Your task to perform on an android device: clear history in the chrome app Image 0: 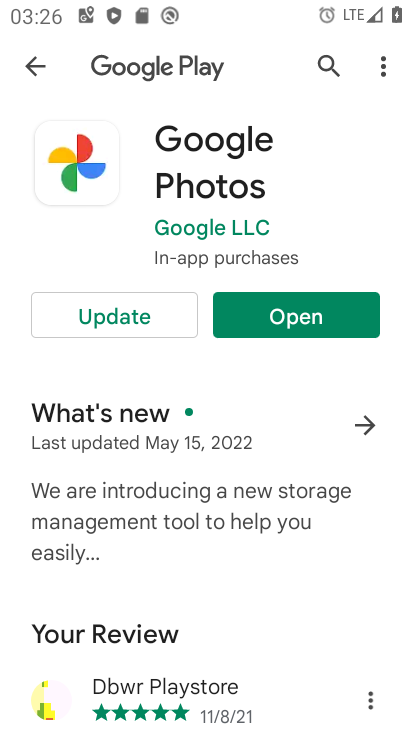
Step 0: press home button
Your task to perform on an android device: clear history in the chrome app Image 1: 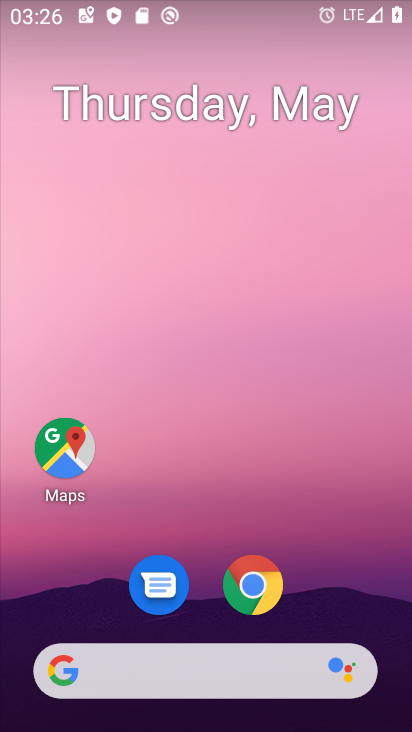
Step 1: click (255, 574)
Your task to perform on an android device: clear history in the chrome app Image 2: 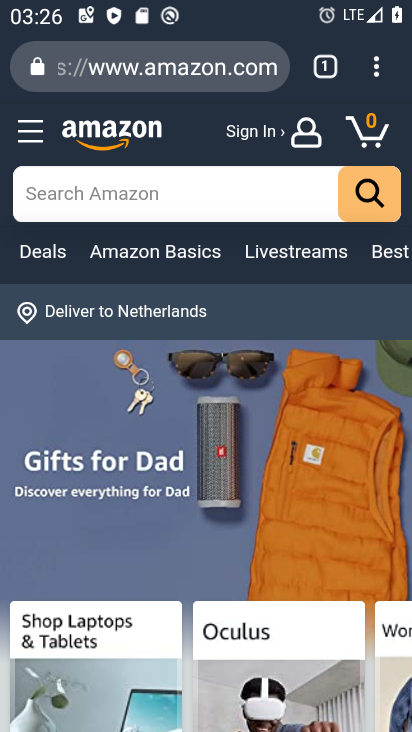
Step 2: click (369, 62)
Your task to perform on an android device: clear history in the chrome app Image 3: 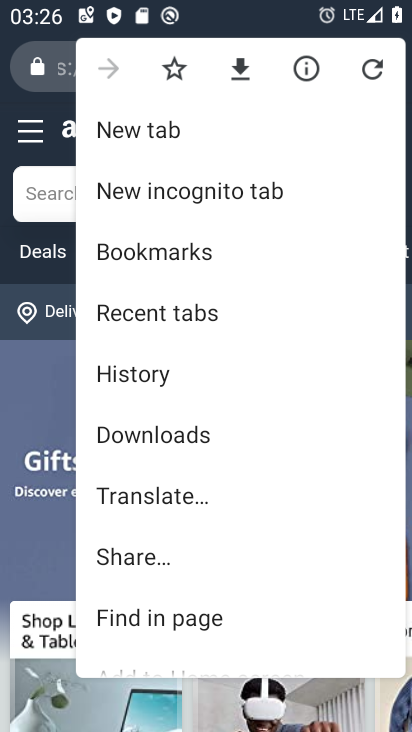
Step 3: click (137, 369)
Your task to perform on an android device: clear history in the chrome app Image 4: 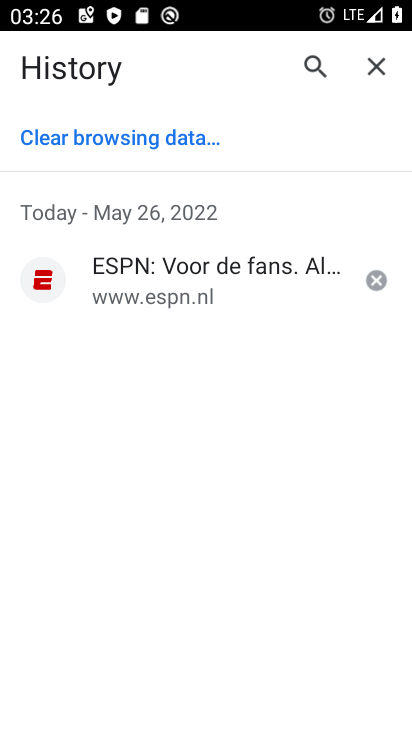
Step 4: click (142, 139)
Your task to perform on an android device: clear history in the chrome app Image 5: 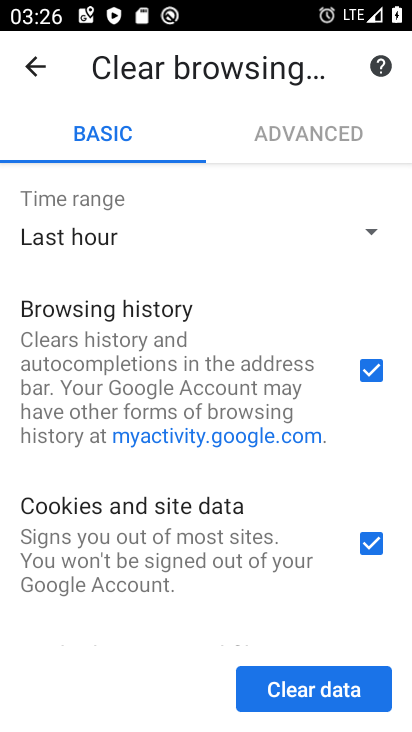
Step 5: click (346, 677)
Your task to perform on an android device: clear history in the chrome app Image 6: 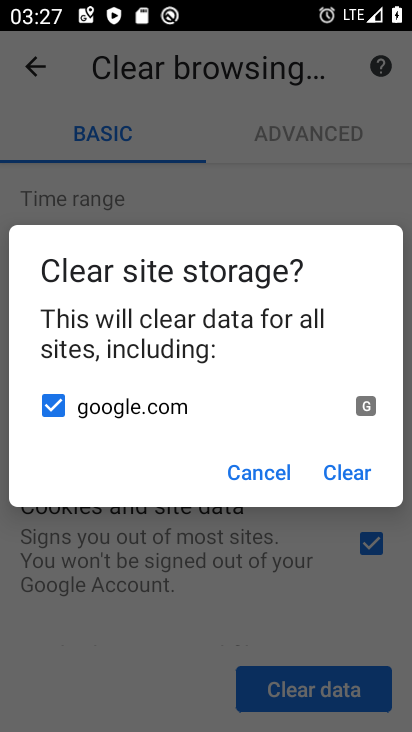
Step 6: click (359, 465)
Your task to perform on an android device: clear history in the chrome app Image 7: 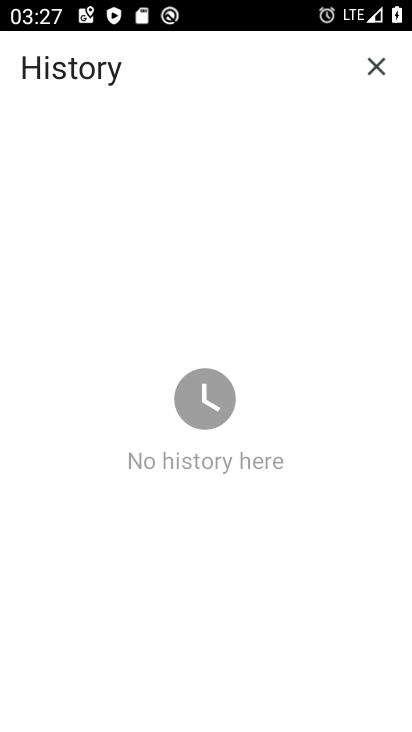
Step 7: task complete